Your task to perform on an android device: Open my contact list Image 0: 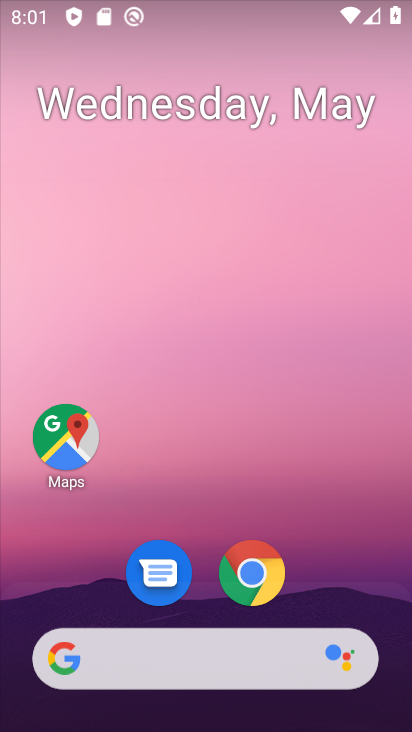
Step 0: press home button
Your task to perform on an android device: Open my contact list Image 1: 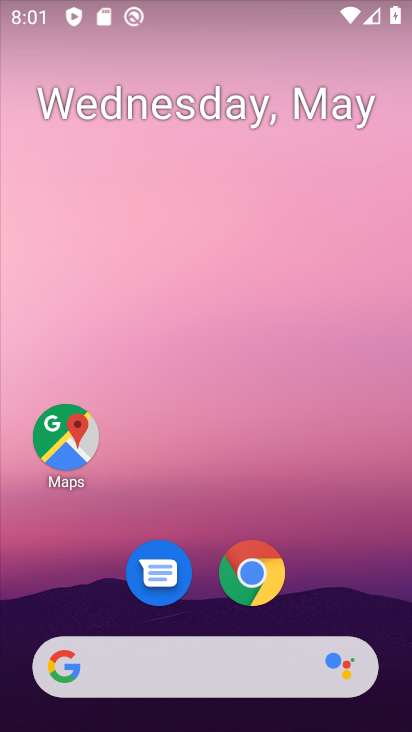
Step 1: drag from (304, 147) to (298, 50)
Your task to perform on an android device: Open my contact list Image 2: 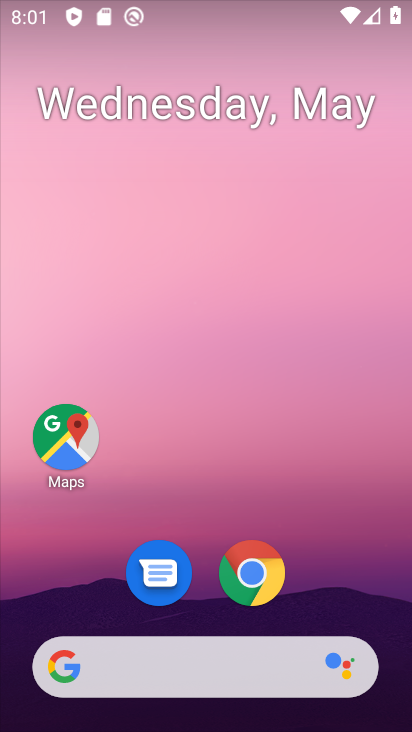
Step 2: click (292, 269)
Your task to perform on an android device: Open my contact list Image 3: 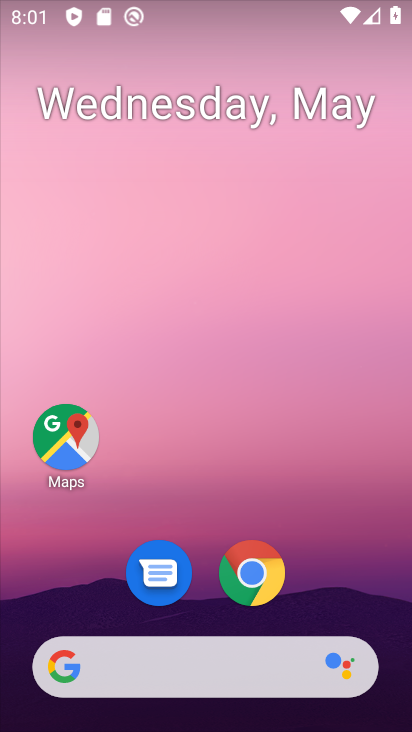
Step 3: drag from (326, 420) to (288, 209)
Your task to perform on an android device: Open my contact list Image 4: 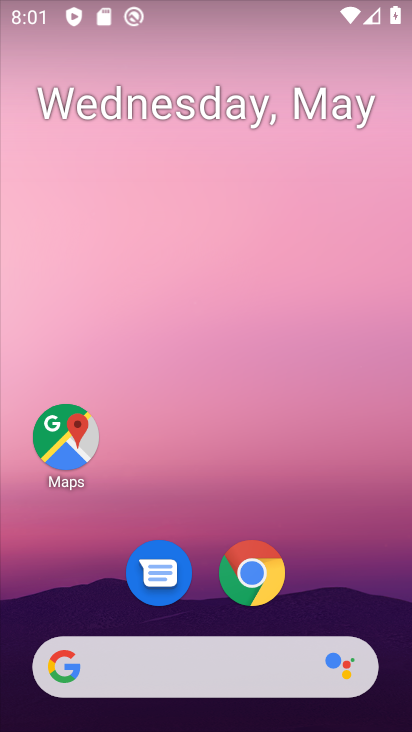
Step 4: drag from (310, 595) to (257, 182)
Your task to perform on an android device: Open my contact list Image 5: 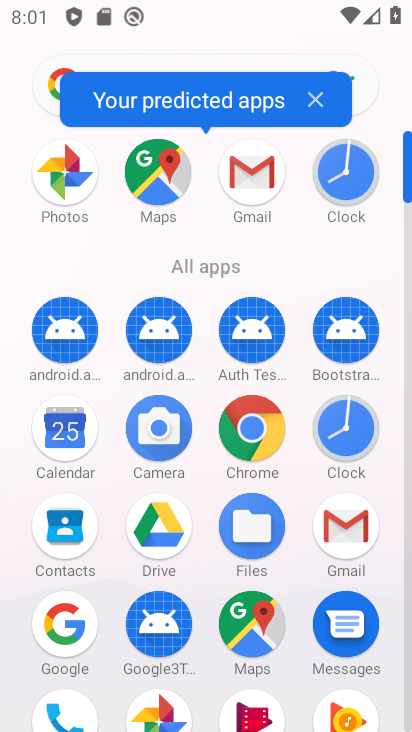
Step 5: click (68, 537)
Your task to perform on an android device: Open my contact list Image 6: 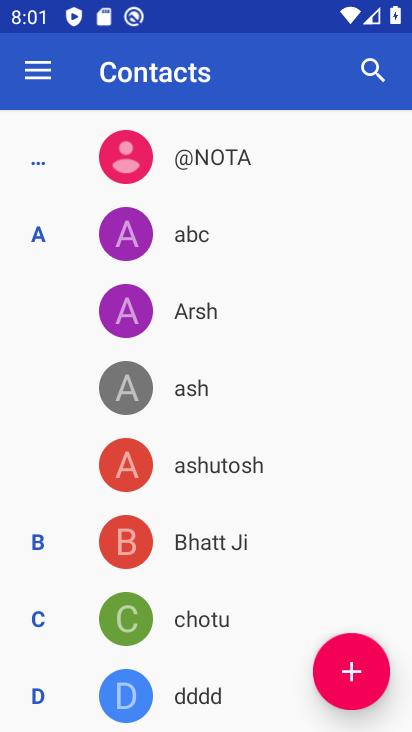
Step 6: task complete